Your task to perform on an android device: open a new tab in the chrome app Image 0: 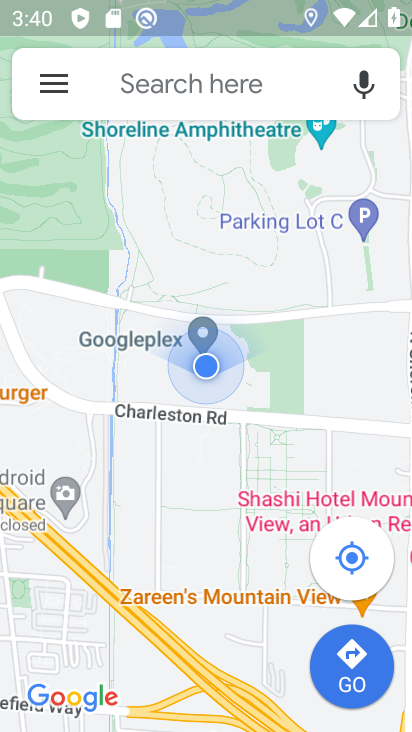
Step 0: press home button
Your task to perform on an android device: open a new tab in the chrome app Image 1: 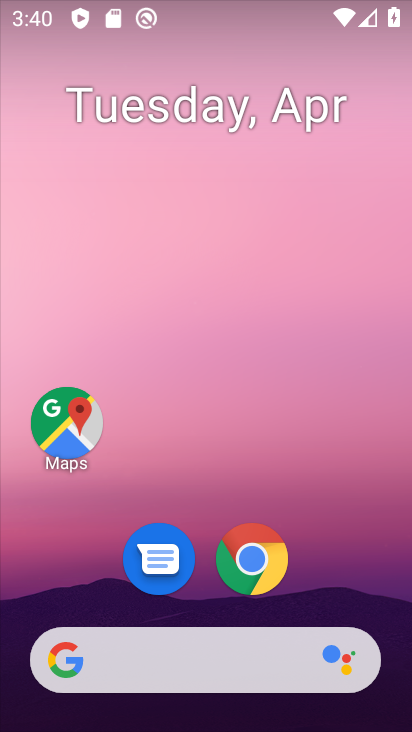
Step 1: click (268, 549)
Your task to perform on an android device: open a new tab in the chrome app Image 2: 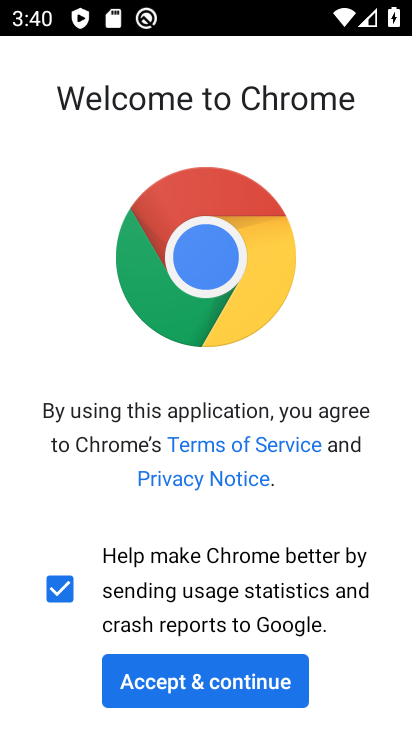
Step 2: click (229, 677)
Your task to perform on an android device: open a new tab in the chrome app Image 3: 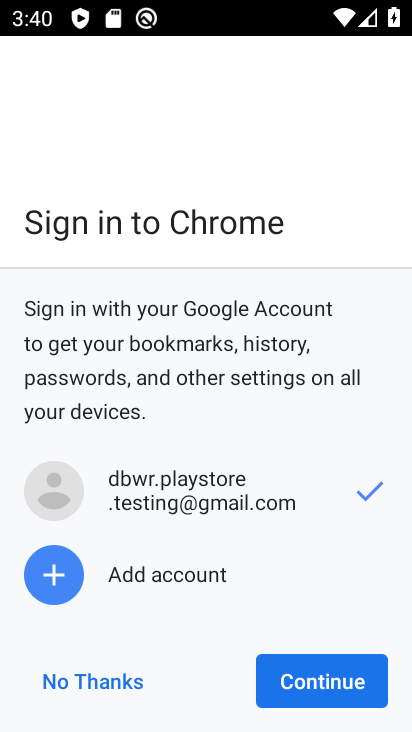
Step 3: click (295, 686)
Your task to perform on an android device: open a new tab in the chrome app Image 4: 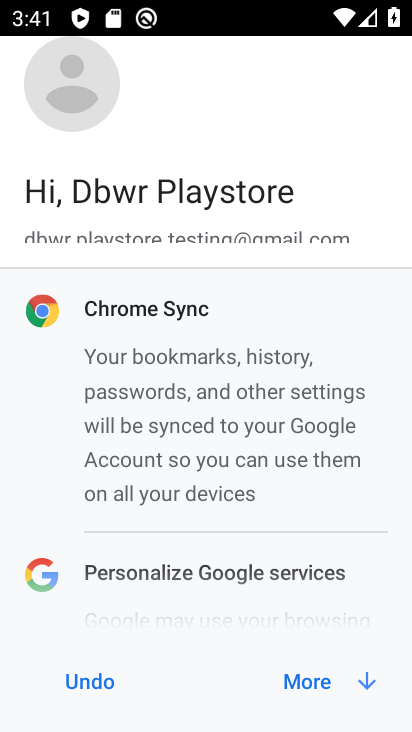
Step 4: click (297, 678)
Your task to perform on an android device: open a new tab in the chrome app Image 5: 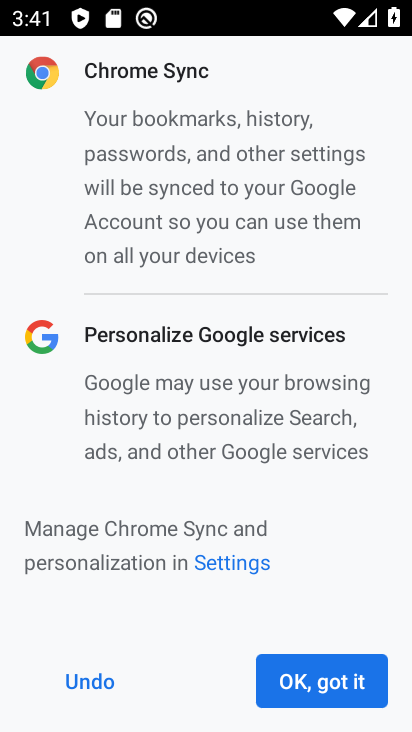
Step 5: click (297, 678)
Your task to perform on an android device: open a new tab in the chrome app Image 6: 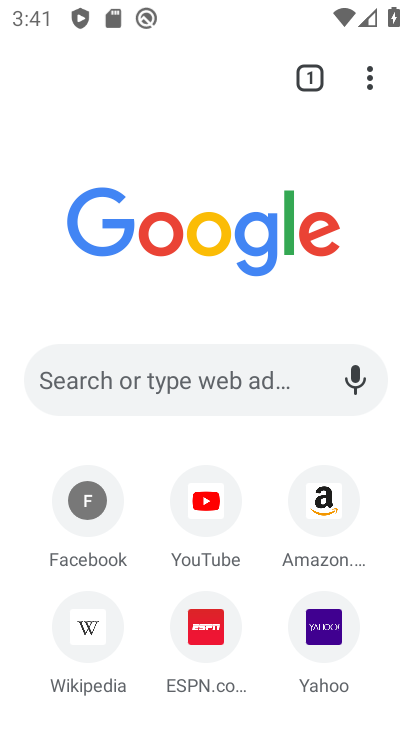
Step 6: click (226, 376)
Your task to perform on an android device: open a new tab in the chrome app Image 7: 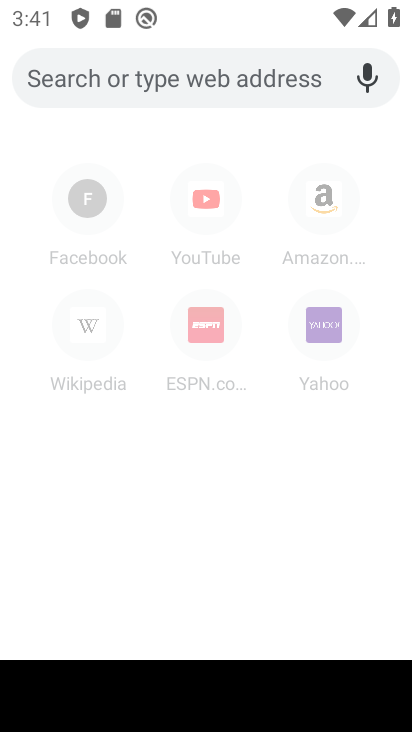
Step 7: press back button
Your task to perform on an android device: open a new tab in the chrome app Image 8: 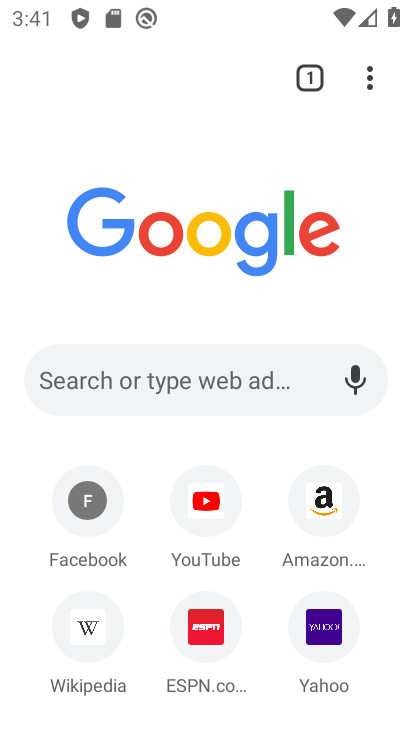
Step 8: click (363, 74)
Your task to perform on an android device: open a new tab in the chrome app Image 9: 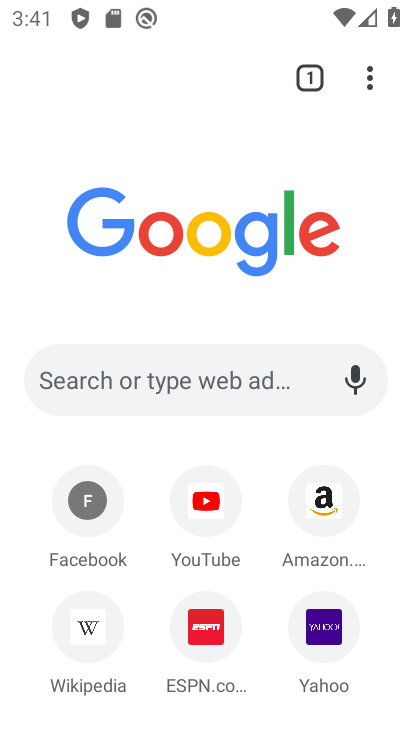
Step 9: click (363, 74)
Your task to perform on an android device: open a new tab in the chrome app Image 10: 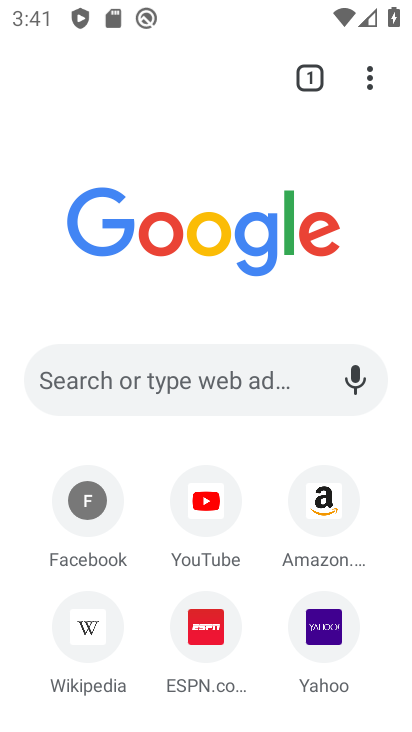
Step 10: click (363, 74)
Your task to perform on an android device: open a new tab in the chrome app Image 11: 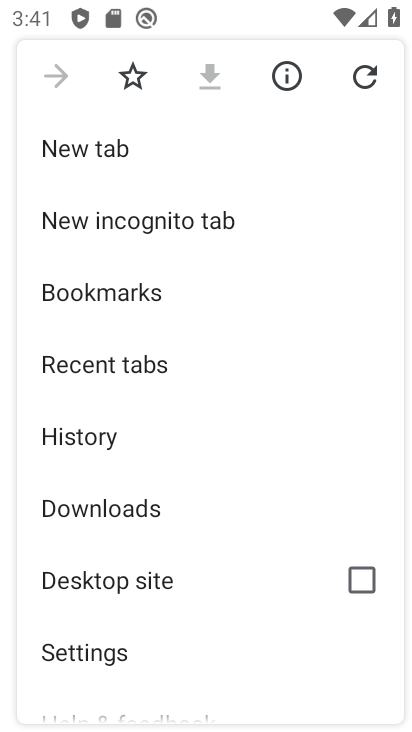
Step 11: click (100, 142)
Your task to perform on an android device: open a new tab in the chrome app Image 12: 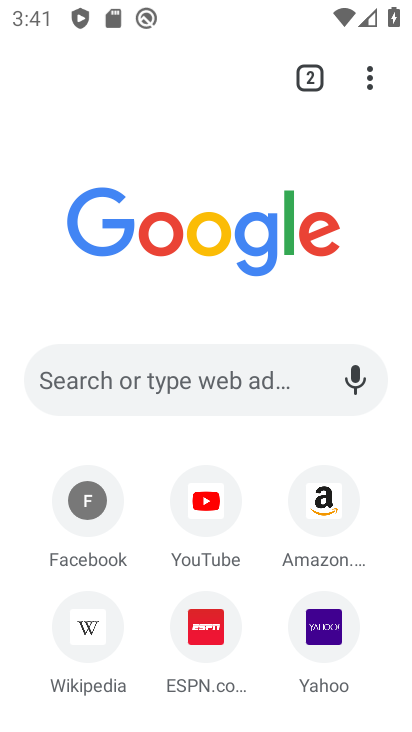
Step 12: task complete